Your task to perform on an android device: What's on my calendar today? Image 0: 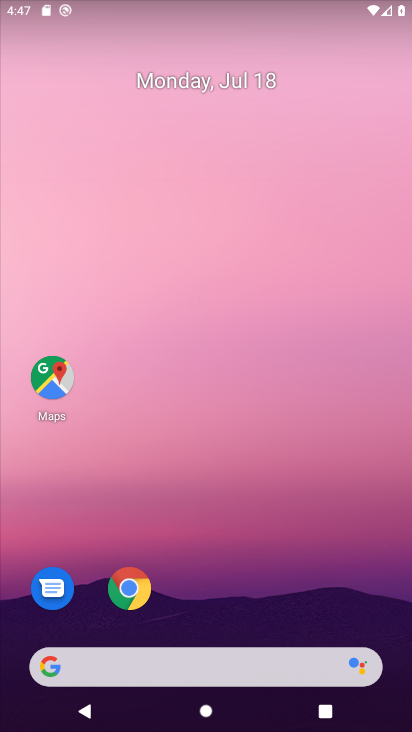
Step 0: click (155, 176)
Your task to perform on an android device: What's on my calendar today? Image 1: 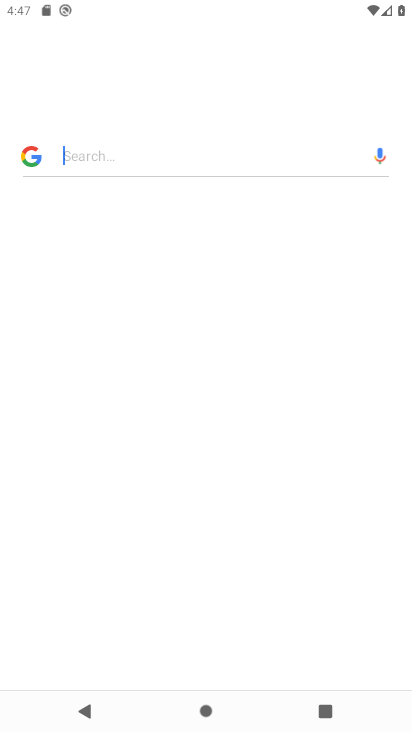
Step 1: drag from (247, 554) to (171, 22)
Your task to perform on an android device: What's on my calendar today? Image 2: 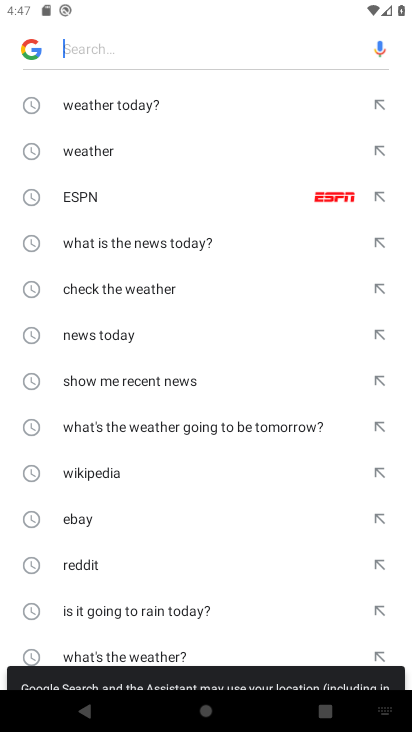
Step 2: press back button
Your task to perform on an android device: What's on my calendar today? Image 3: 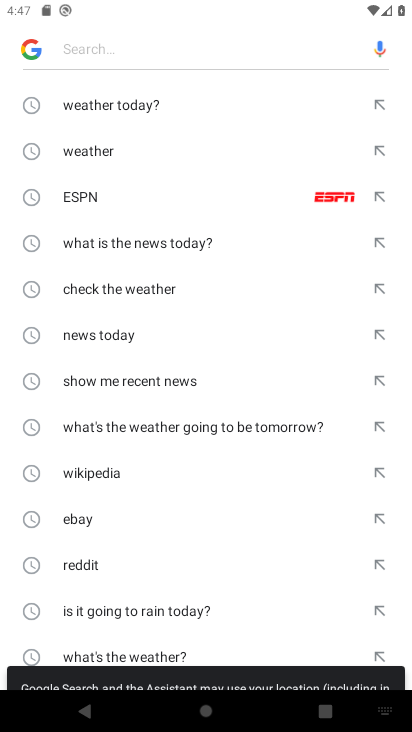
Step 3: press back button
Your task to perform on an android device: What's on my calendar today? Image 4: 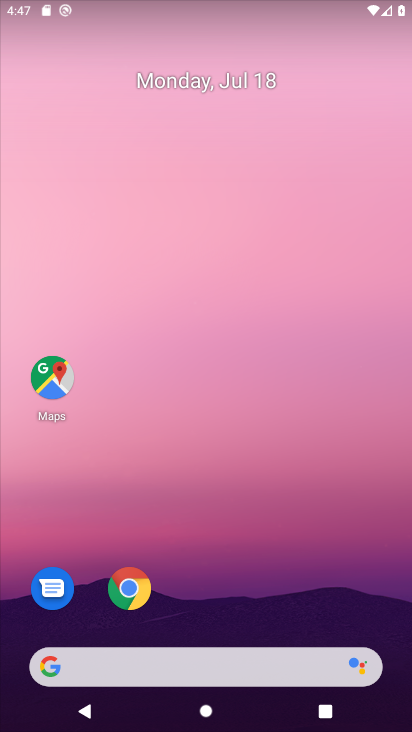
Step 4: press home button
Your task to perform on an android device: What's on my calendar today? Image 5: 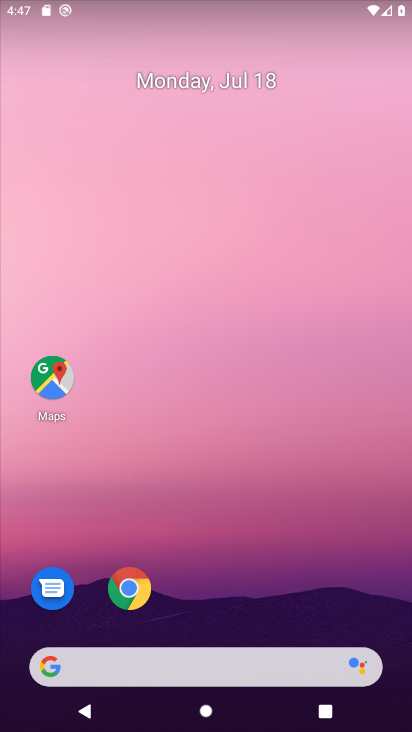
Step 5: click (271, 96)
Your task to perform on an android device: What's on my calendar today? Image 6: 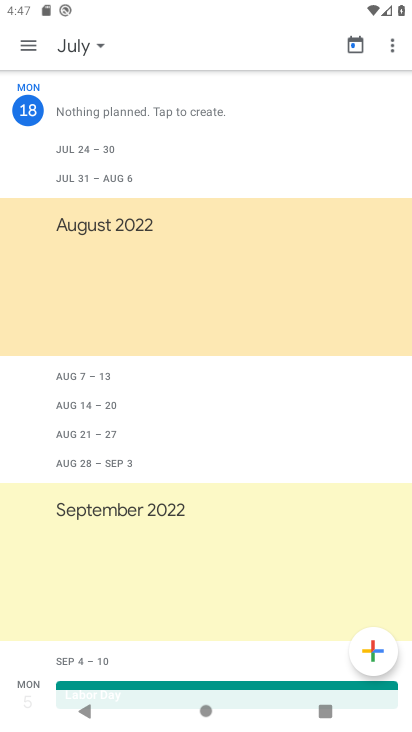
Step 6: click (95, 47)
Your task to perform on an android device: What's on my calendar today? Image 7: 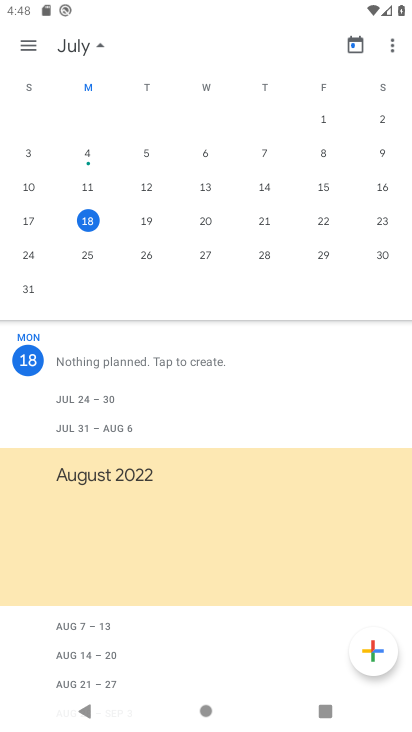
Step 7: click (98, 223)
Your task to perform on an android device: What's on my calendar today? Image 8: 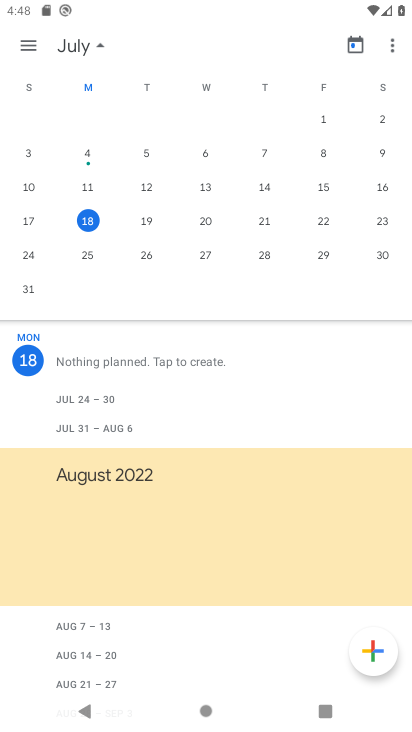
Step 8: click (97, 223)
Your task to perform on an android device: What's on my calendar today? Image 9: 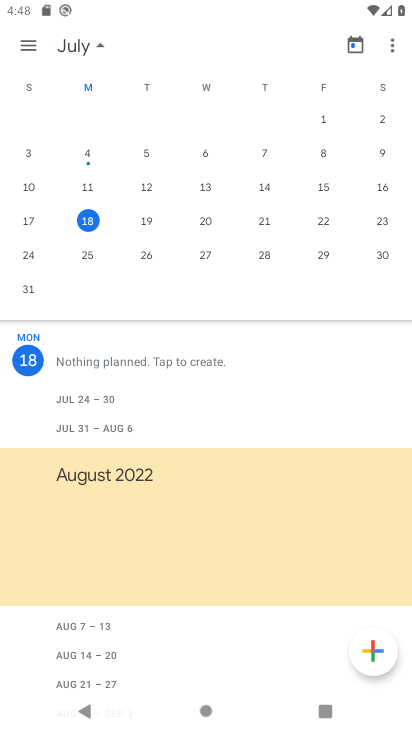
Step 9: task complete